Your task to perform on an android device: open a new tab in the chrome app Image 0: 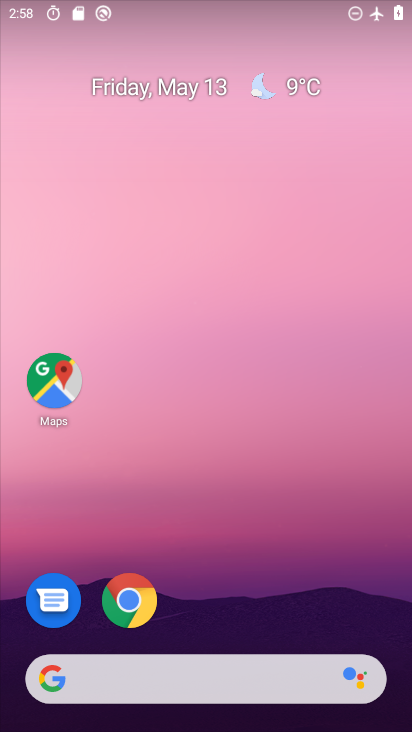
Step 0: click (285, 201)
Your task to perform on an android device: open a new tab in the chrome app Image 1: 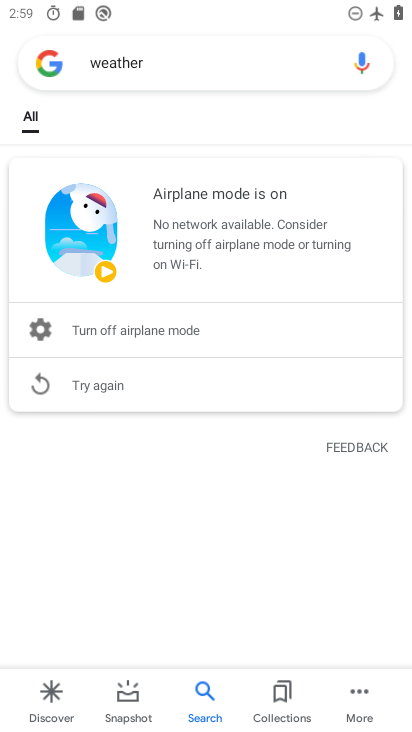
Step 1: press home button
Your task to perform on an android device: open a new tab in the chrome app Image 2: 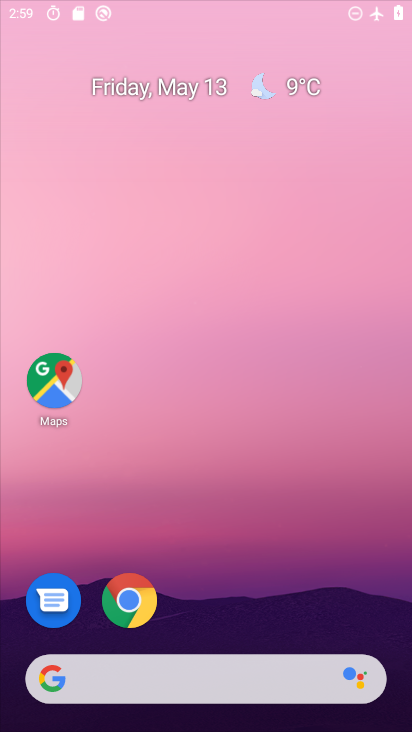
Step 2: drag from (223, 605) to (217, 136)
Your task to perform on an android device: open a new tab in the chrome app Image 3: 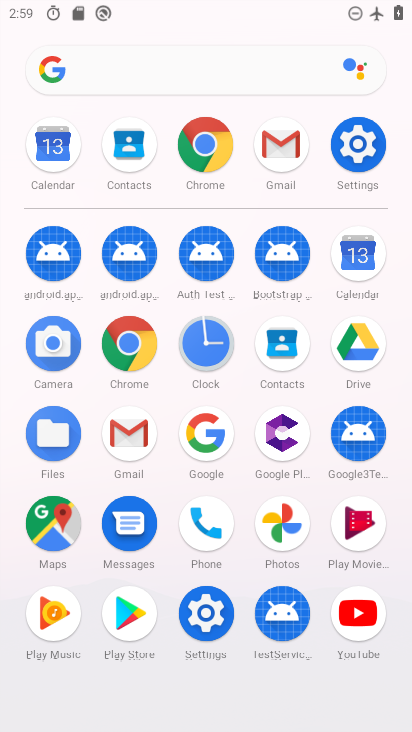
Step 3: click (205, 149)
Your task to perform on an android device: open a new tab in the chrome app Image 4: 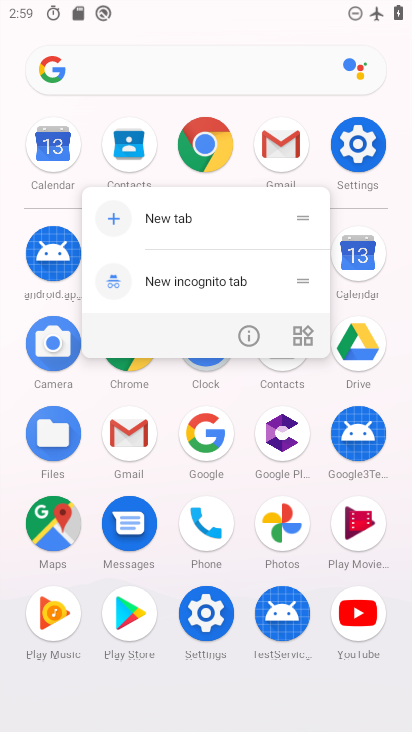
Step 4: click (246, 331)
Your task to perform on an android device: open a new tab in the chrome app Image 5: 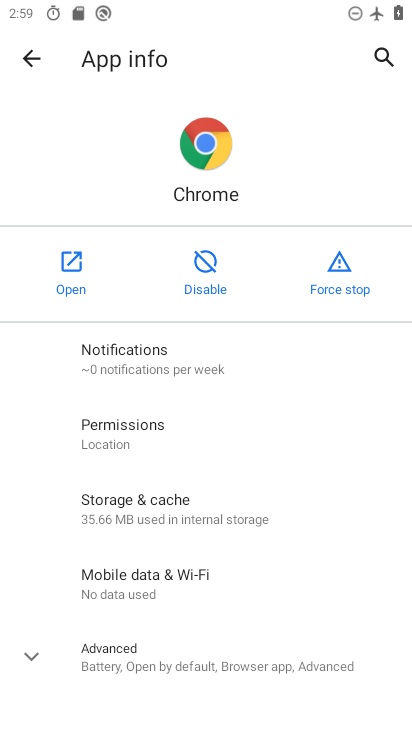
Step 5: click (69, 265)
Your task to perform on an android device: open a new tab in the chrome app Image 6: 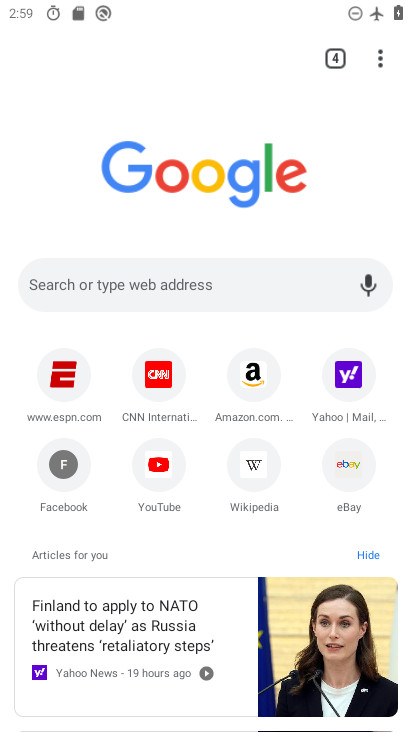
Step 6: task complete